Your task to perform on an android device: allow cookies in the chrome app Image 0: 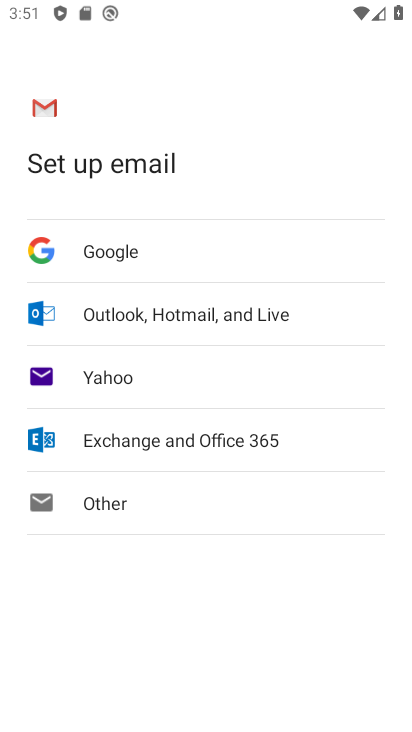
Step 0: press home button
Your task to perform on an android device: allow cookies in the chrome app Image 1: 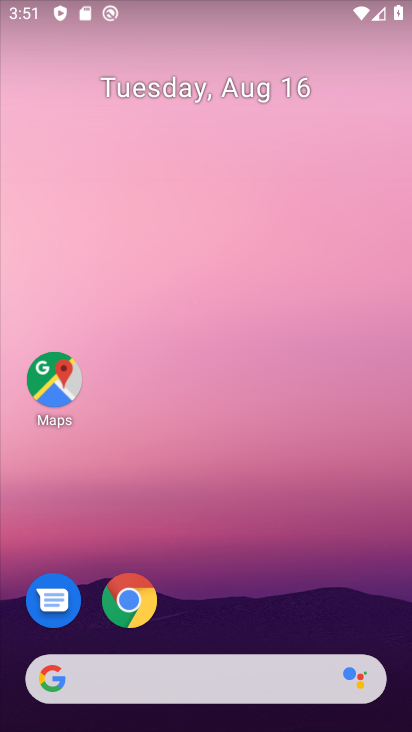
Step 1: drag from (242, 624) to (270, 114)
Your task to perform on an android device: allow cookies in the chrome app Image 2: 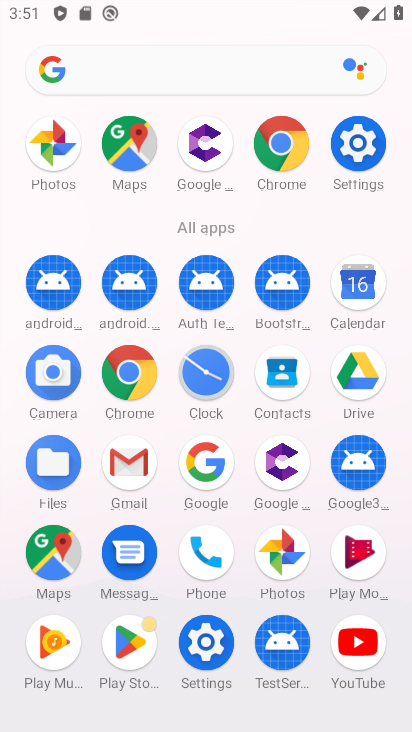
Step 2: click (137, 378)
Your task to perform on an android device: allow cookies in the chrome app Image 3: 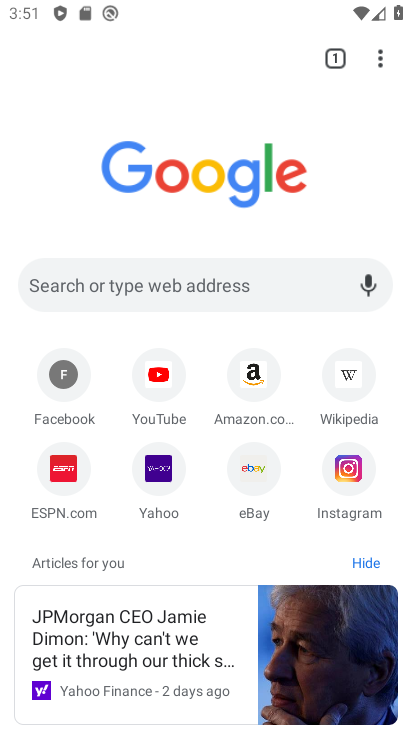
Step 3: click (376, 59)
Your task to perform on an android device: allow cookies in the chrome app Image 4: 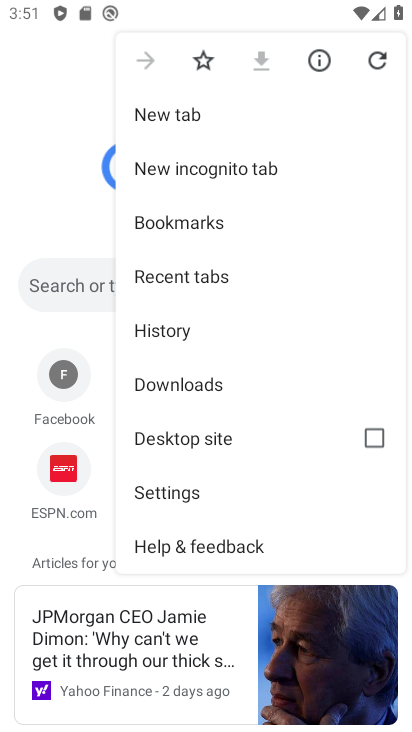
Step 4: click (180, 493)
Your task to perform on an android device: allow cookies in the chrome app Image 5: 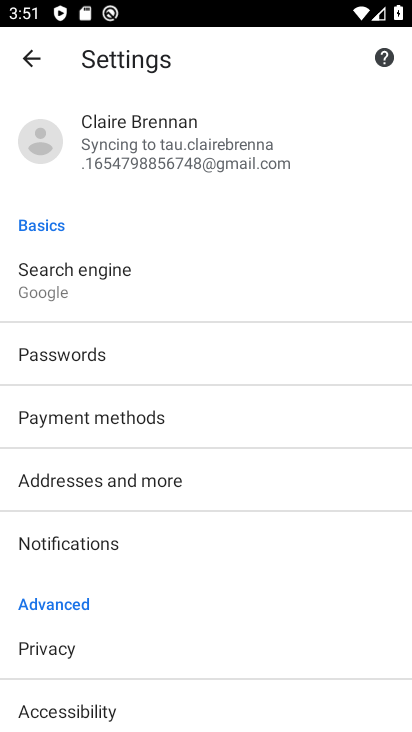
Step 5: drag from (138, 583) to (166, 266)
Your task to perform on an android device: allow cookies in the chrome app Image 6: 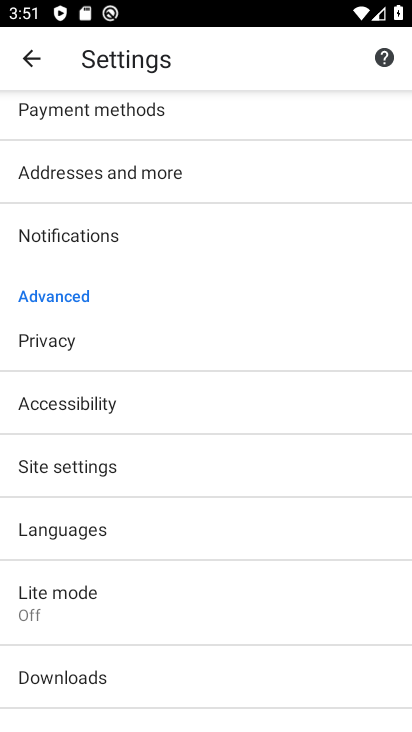
Step 6: click (84, 476)
Your task to perform on an android device: allow cookies in the chrome app Image 7: 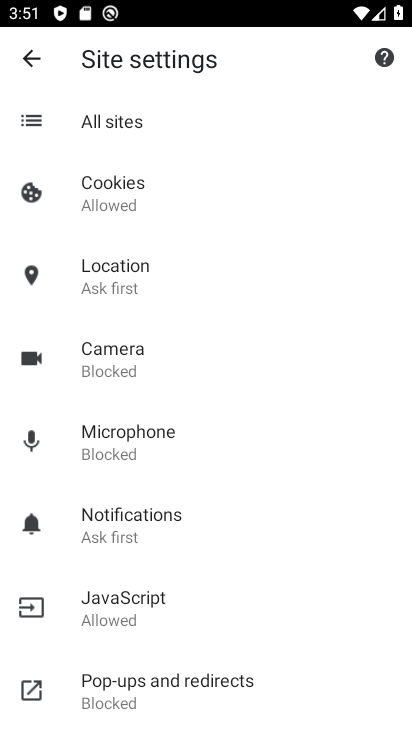
Step 7: click (92, 189)
Your task to perform on an android device: allow cookies in the chrome app Image 8: 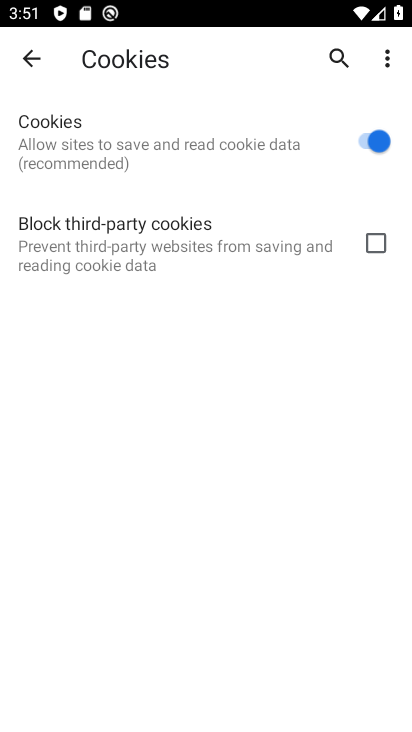
Step 8: task complete